Your task to perform on an android device: turn on location history Image 0: 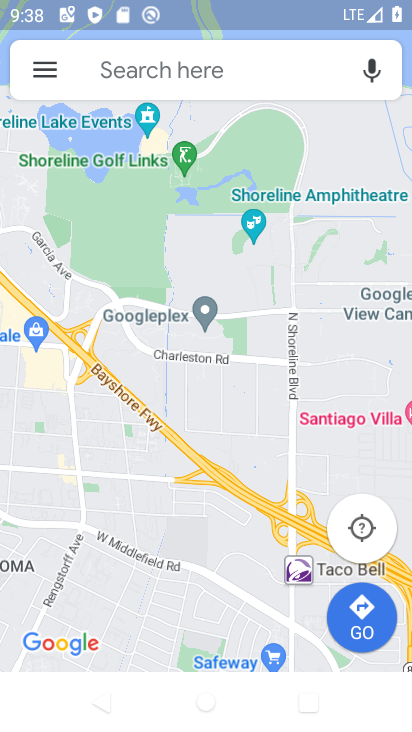
Step 0: press home button
Your task to perform on an android device: turn on location history Image 1: 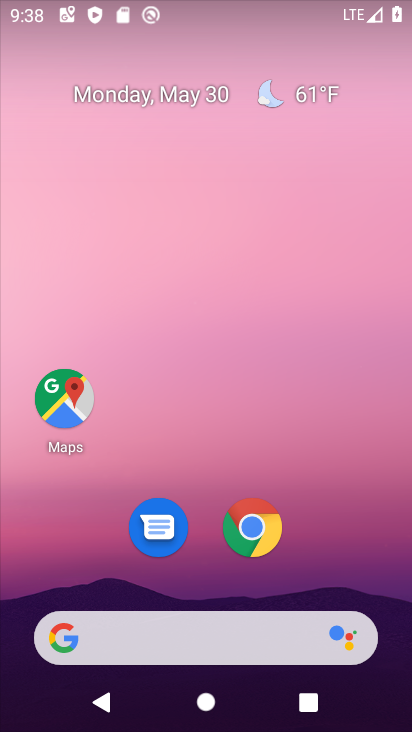
Step 1: drag from (204, 574) to (204, 5)
Your task to perform on an android device: turn on location history Image 2: 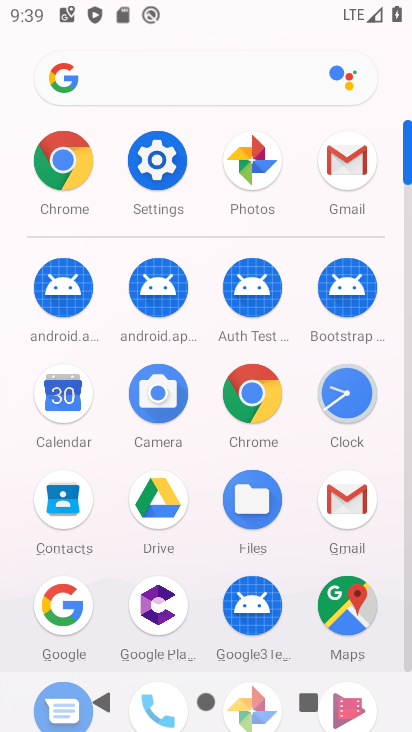
Step 2: click (167, 148)
Your task to perform on an android device: turn on location history Image 3: 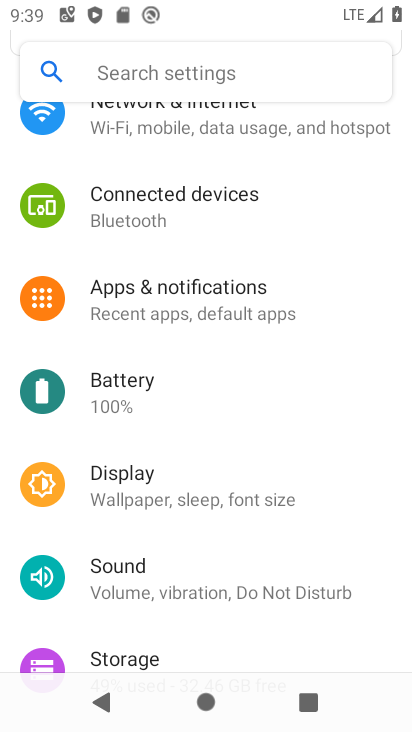
Step 3: drag from (146, 568) to (165, 206)
Your task to perform on an android device: turn on location history Image 4: 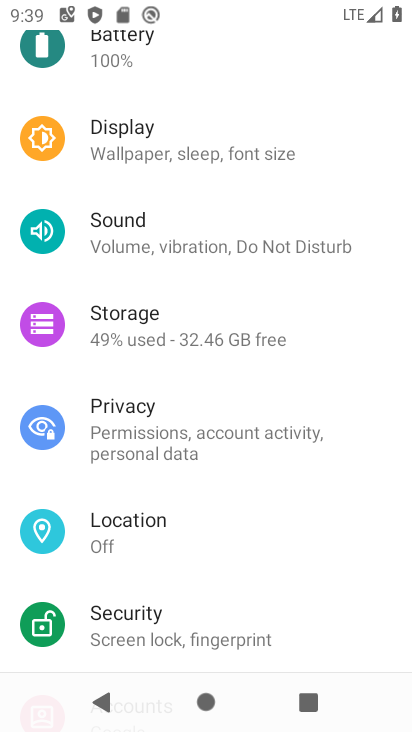
Step 4: click (114, 550)
Your task to perform on an android device: turn on location history Image 5: 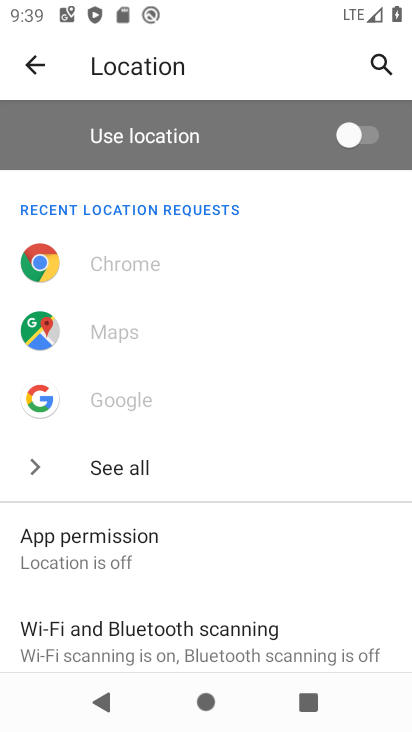
Step 5: drag from (162, 600) to (212, 116)
Your task to perform on an android device: turn on location history Image 6: 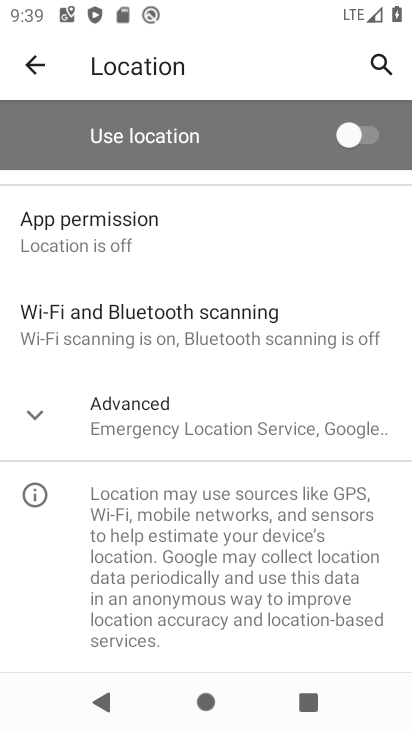
Step 6: click (152, 426)
Your task to perform on an android device: turn on location history Image 7: 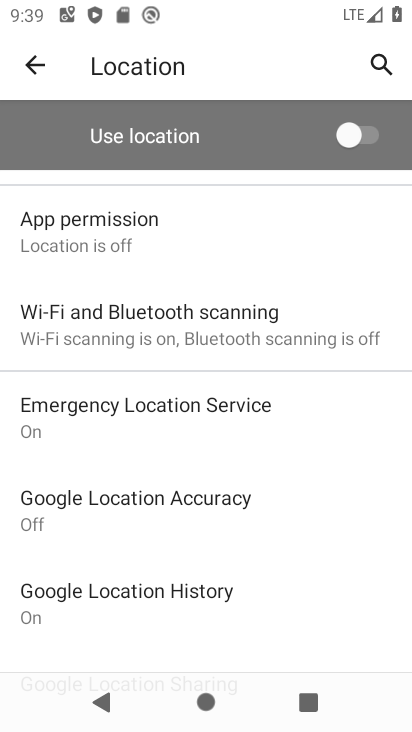
Step 7: click (179, 595)
Your task to perform on an android device: turn on location history Image 8: 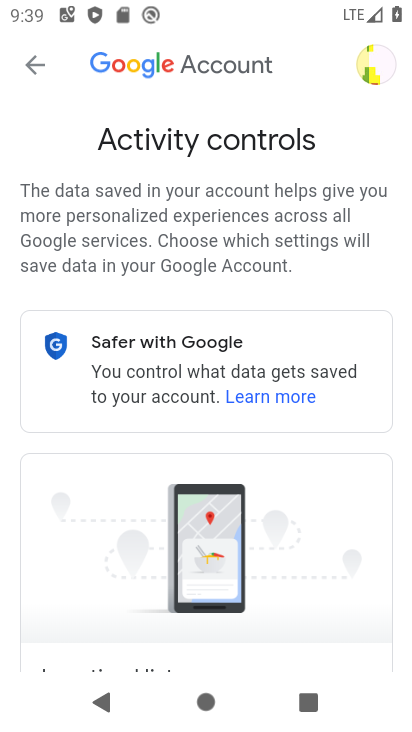
Step 8: task complete